Your task to perform on an android device: Go to Google maps Image 0: 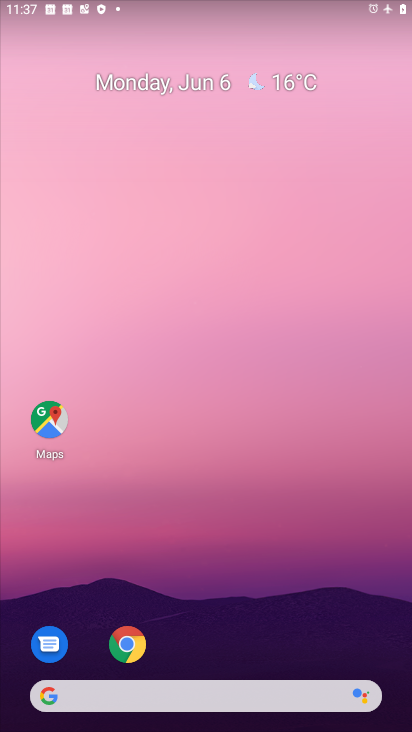
Step 0: drag from (206, 616) to (317, 138)
Your task to perform on an android device: Go to Google maps Image 1: 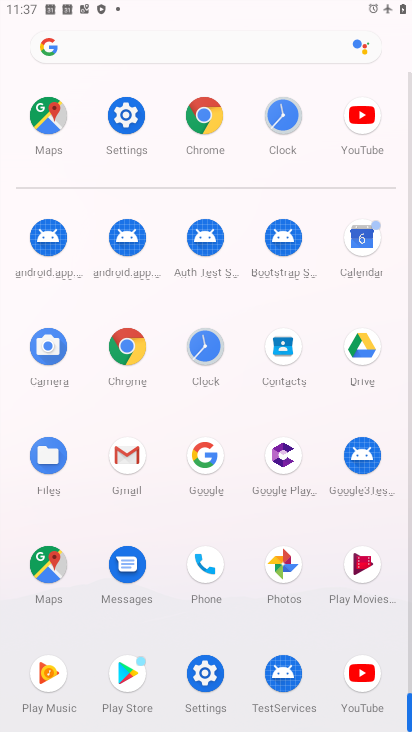
Step 1: click (47, 563)
Your task to perform on an android device: Go to Google maps Image 2: 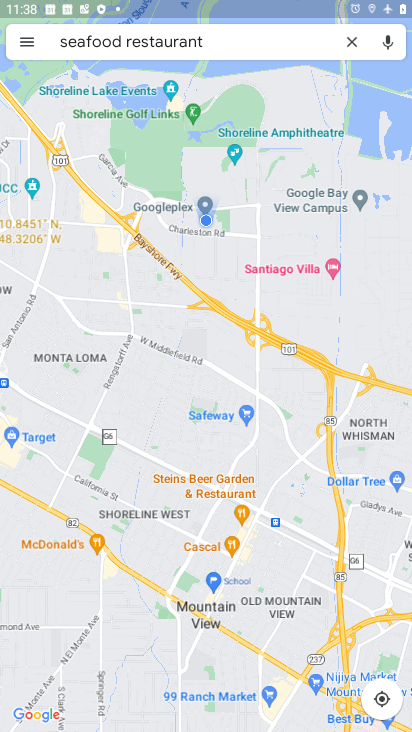
Step 2: task complete